Your task to perform on an android device: Look up the best rated wireless earbuds on Ali Express Image 0: 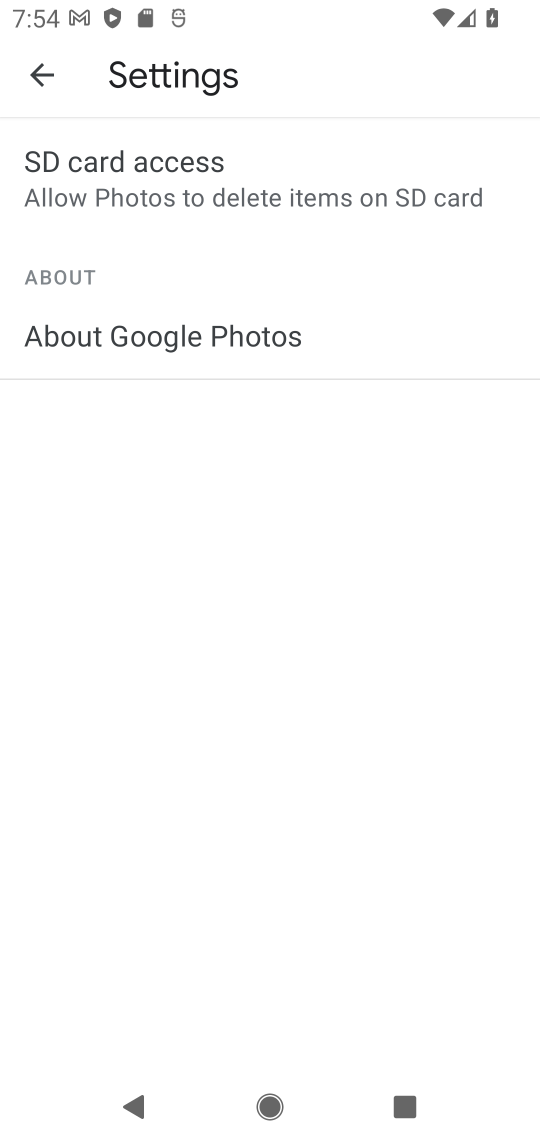
Step 0: click (189, 996)
Your task to perform on an android device: Look up the best rated wireless earbuds on Ali Express Image 1: 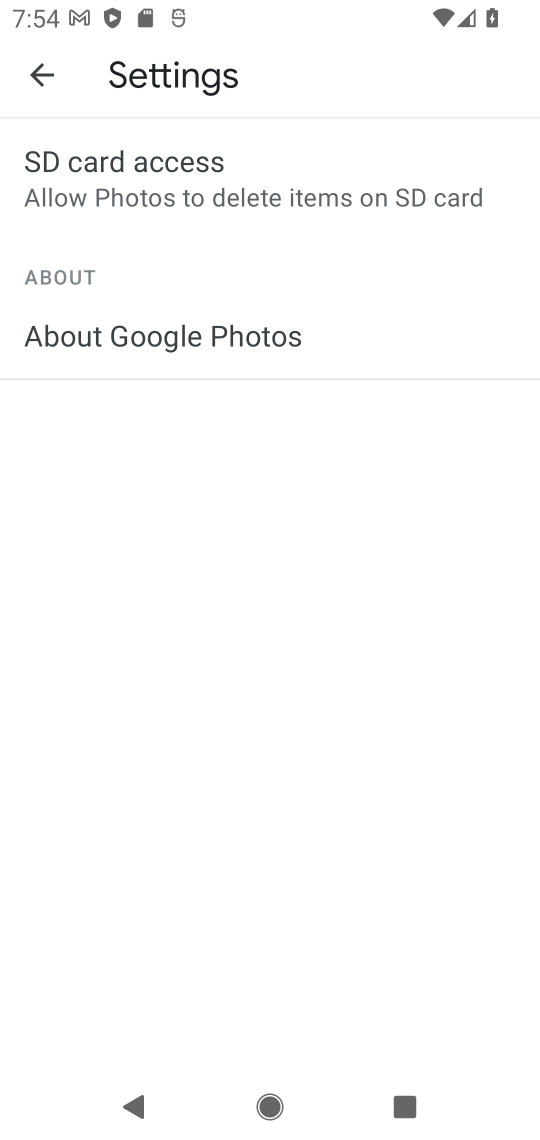
Step 1: press home button
Your task to perform on an android device: Look up the best rated wireless earbuds on Ali Express Image 2: 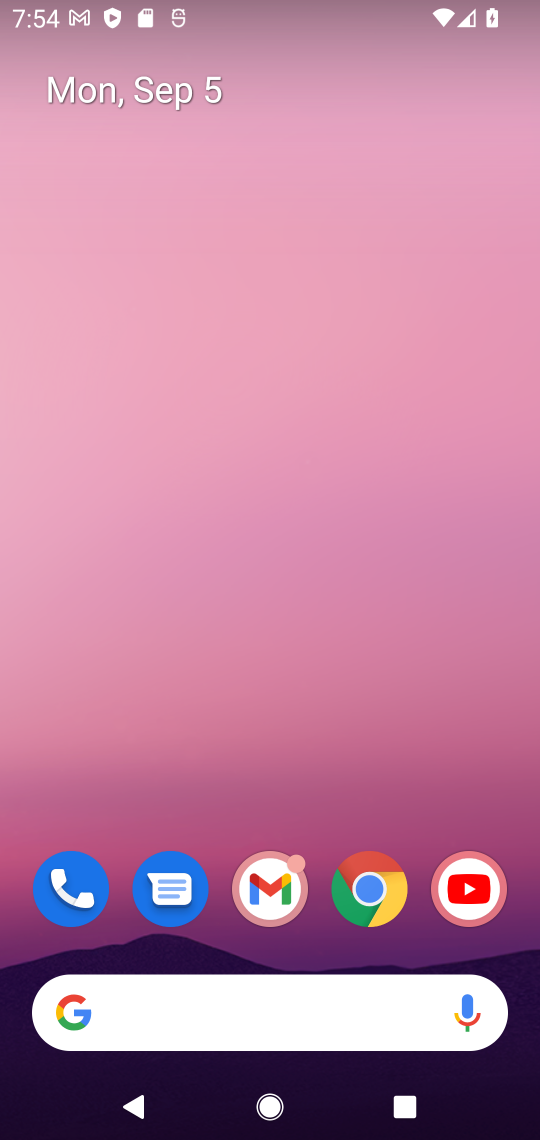
Step 2: click (303, 999)
Your task to perform on an android device: Look up the best rated wireless earbuds on Ali Express Image 3: 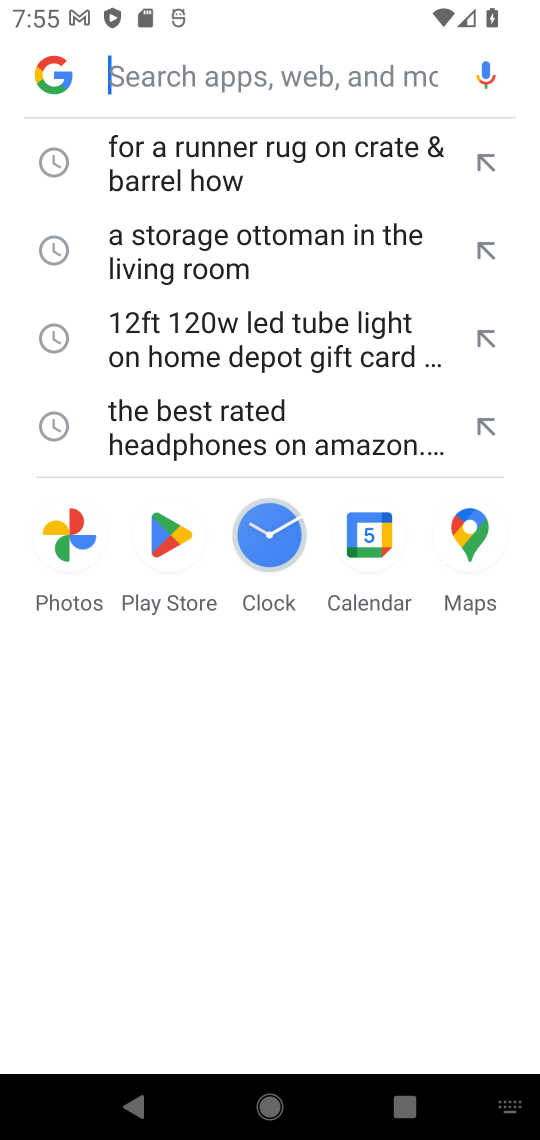
Step 3: type "the best rated wireless earbuds on Ali Express"
Your task to perform on an android device: Look up the best rated wireless earbuds on Ali Express Image 4: 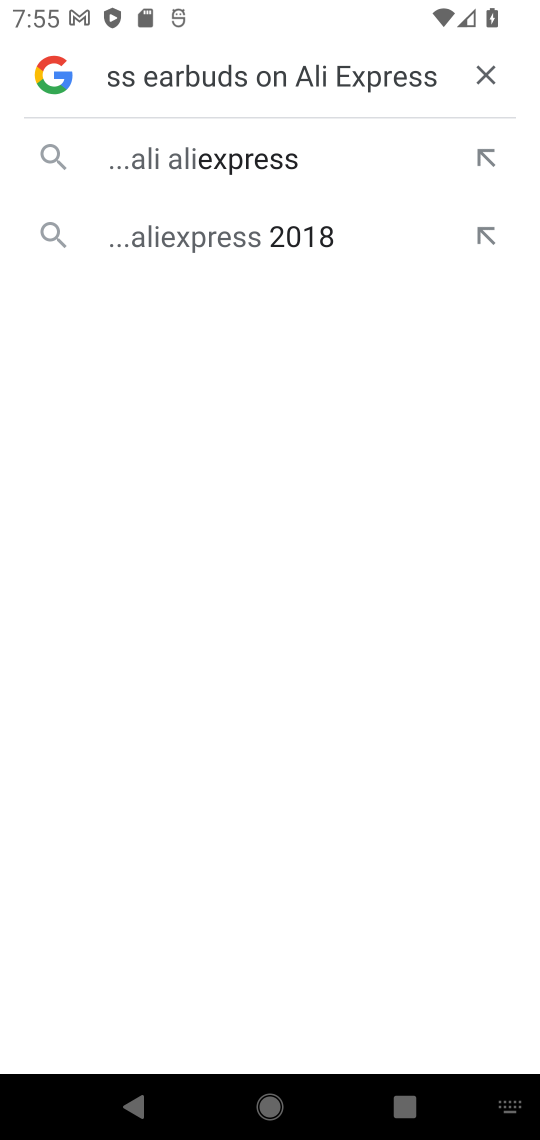
Step 4: click (246, 141)
Your task to perform on an android device: Look up the best rated wireless earbuds on Ali Express Image 5: 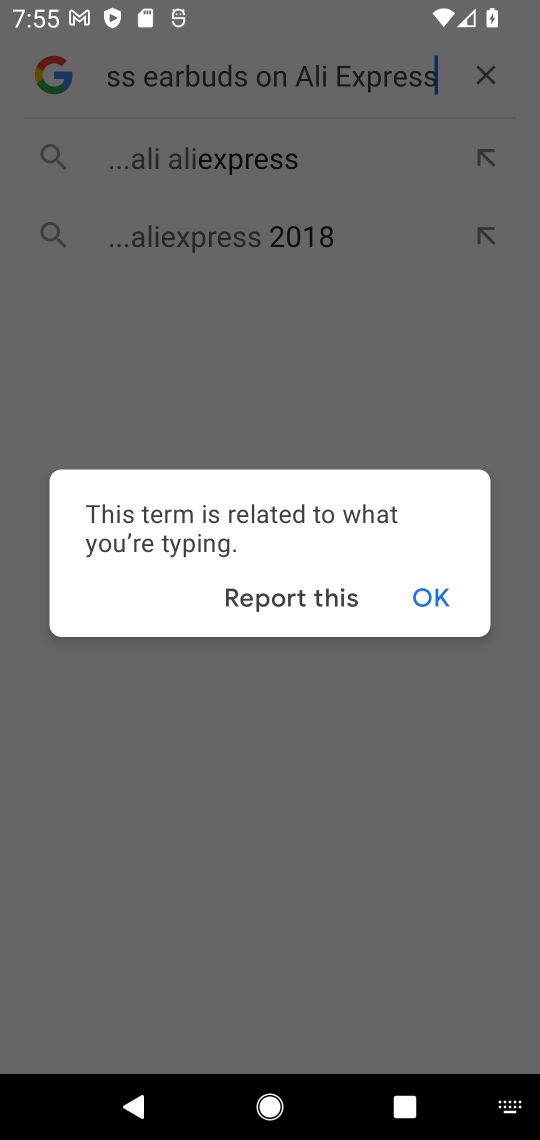
Step 5: click (436, 601)
Your task to perform on an android device: Look up the best rated wireless earbuds on Ali Express Image 6: 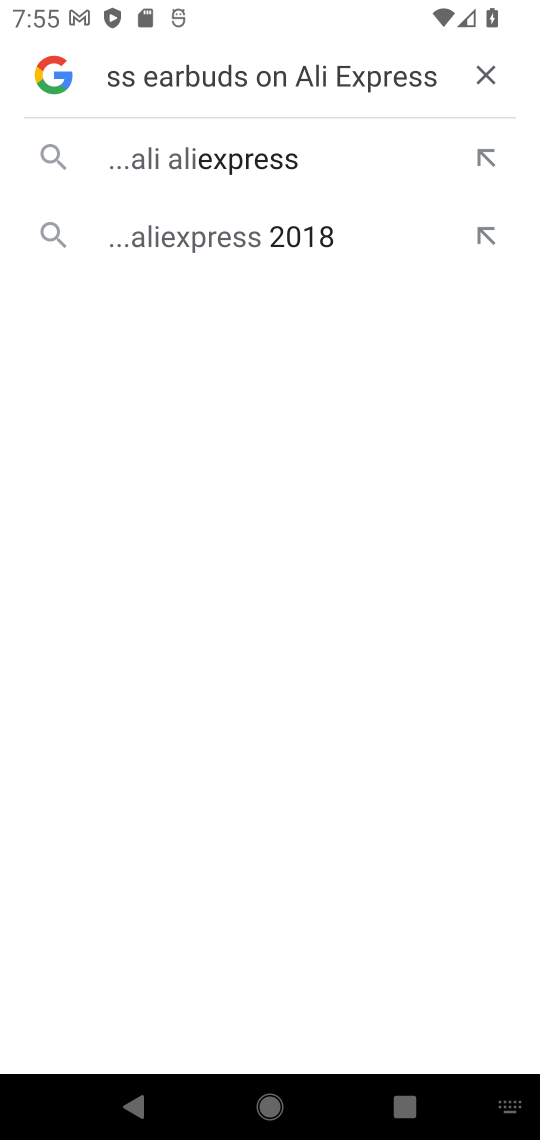
Step 6: click (203, 158)
Your task to perform on an android device: Look up the best rated wireless earbuds on Ali Express Image 7: 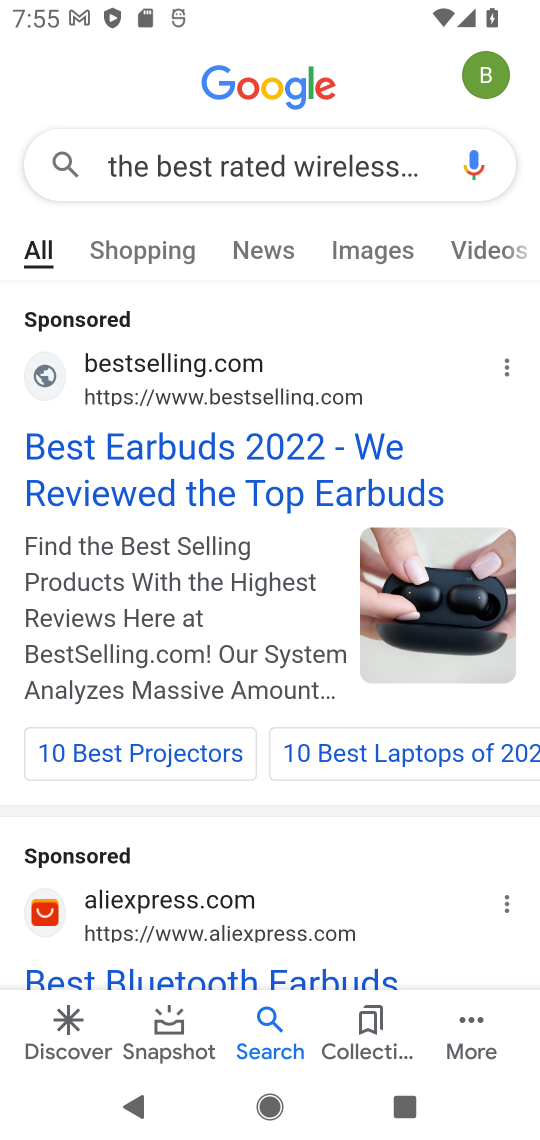
Step 7: task complete